Your task to perform on an android device: add a contact Image 0: 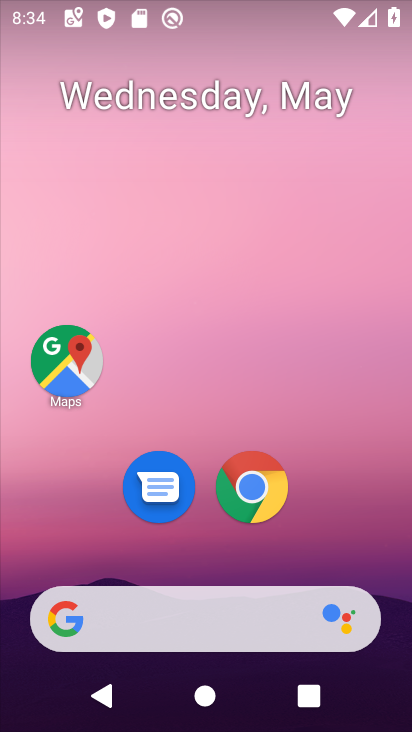
Step 0: press home button
Your task to perform on an android device: add a contact Image 1: 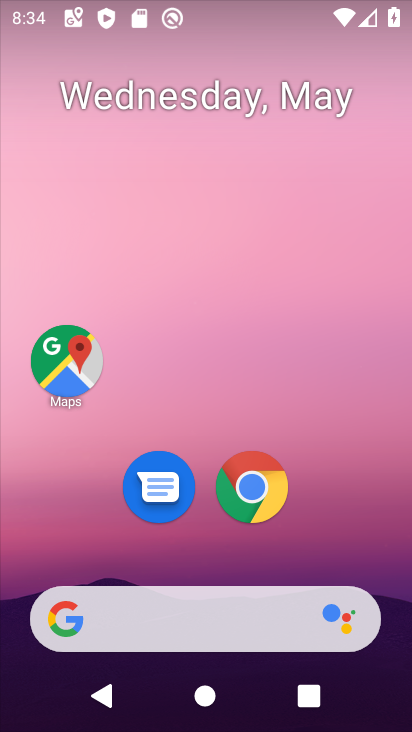
Step 1: drag from (211, 555) to (202, 40)
Your task to perform on an android device: add a contact Image 2: 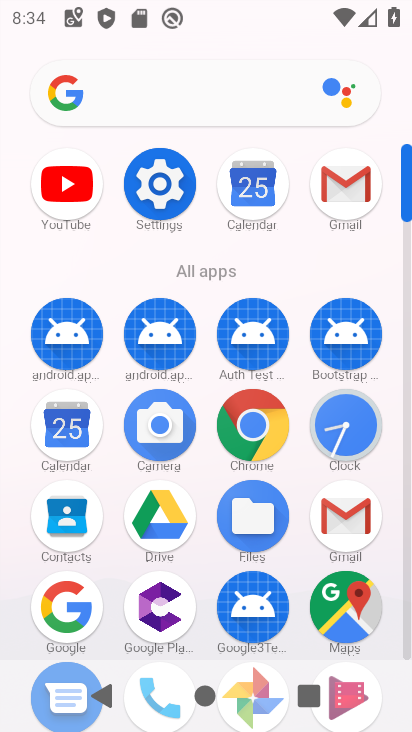
Step 2: click (63, 515)
Your task to perform on an android device: add a contact Image 3: 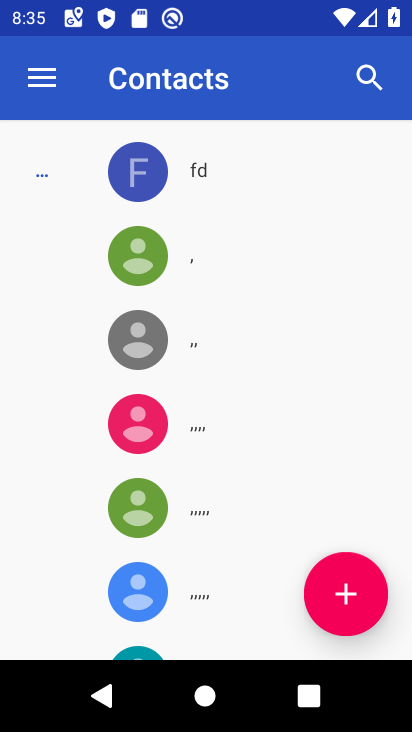
Step 3: click (355, 595)
Your task to perform on an android device: add a contact Image 4: 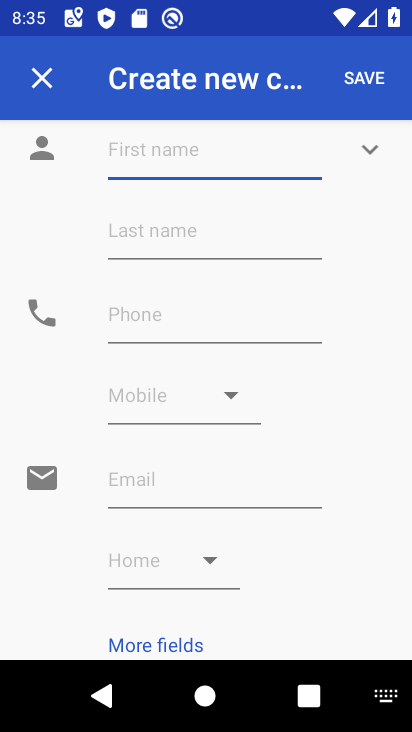
Step 4: type "fghjkl"
Your task to perform on an android device: add a contact Image 5: 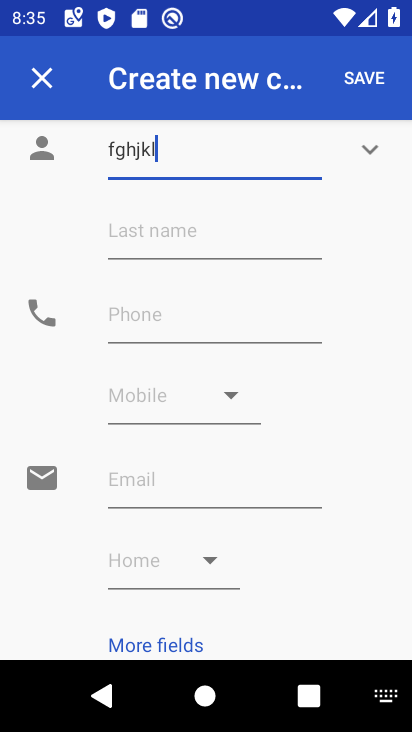
Step 5: type ""
Your task to perform on an android device: add a contact Image 6: 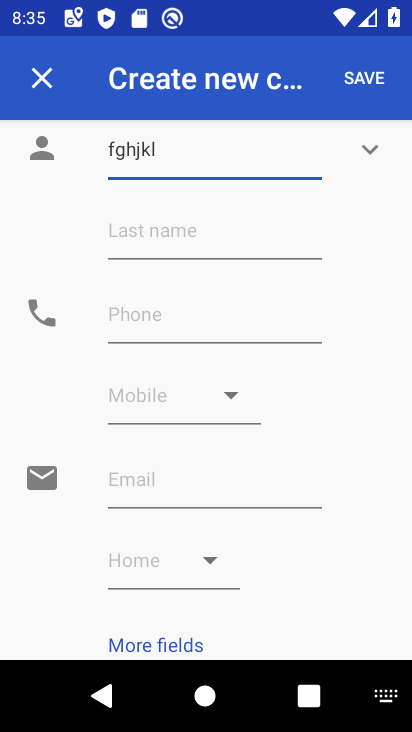
Step 6: click (356, 85)
Your task to perform on an android device: add a contact Image 7: 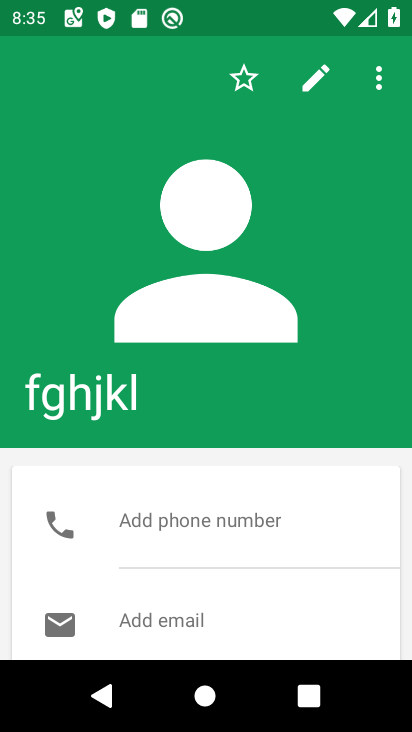
Step 7: task complete